Your task to perform on an android device: add a contact in the contacts app Image 0: 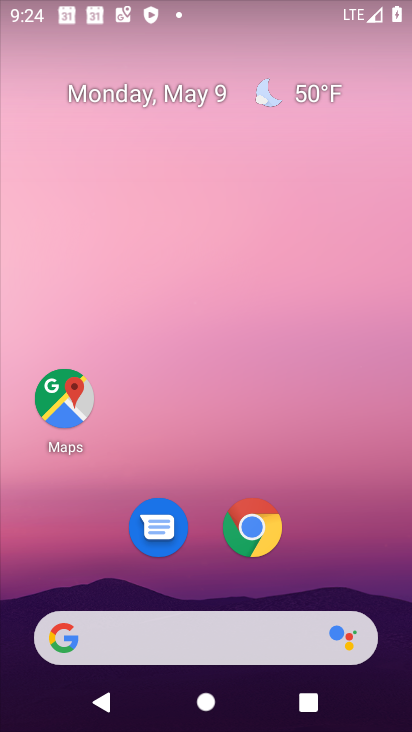
Step 0: drag from (200, 579) to (314, 107)
Your task to perform on an android device: add a contact in the contacts app Image 1: 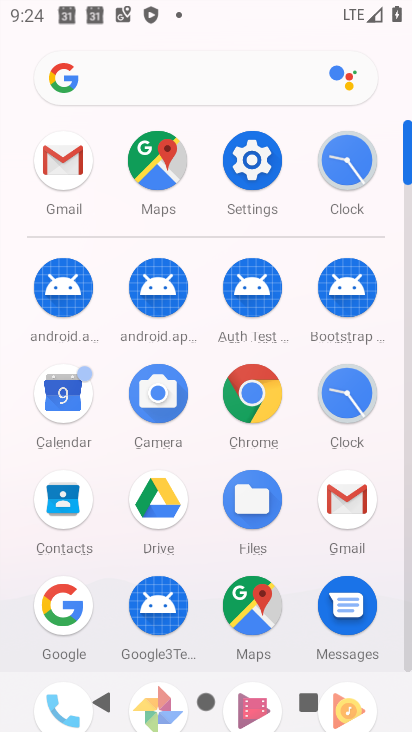
Step 1: click (83, 531)
Your task to perform on an android device: add a contact in the contacts app Image 2: 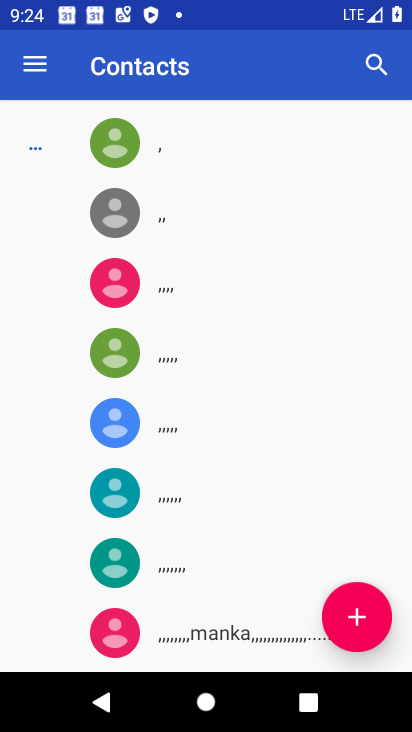
Step 2: click (368, 622)
Your task to perform on an android device: add a contact in the contacts app Image 3: 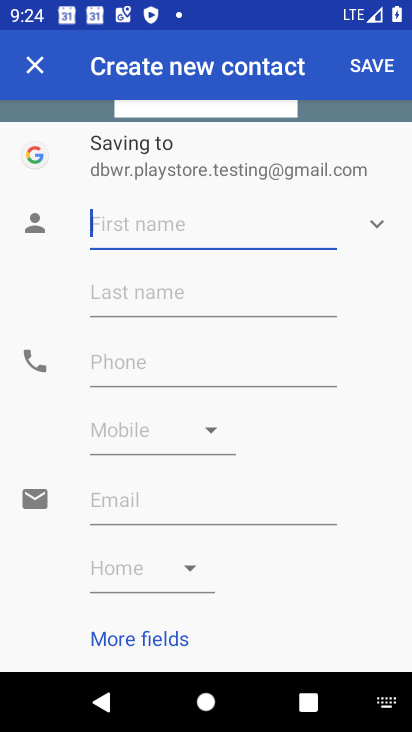
Step 3: type "alfred"
Your task to perform on an android device: add a contact in the contacts app Image 4: 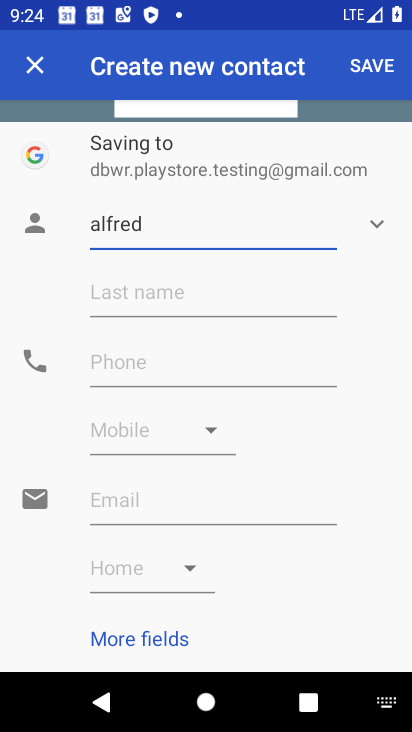
Step 4: click (378, 66)
Your task to perform on an android device: add a contact in the contacts app Image 5: 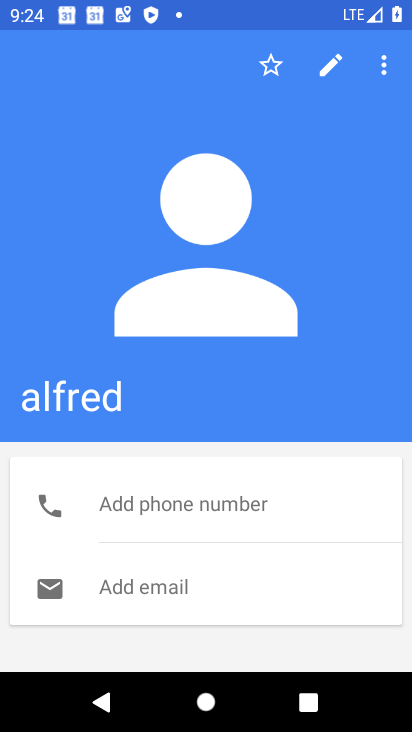
Step 5: task complete